Your task to perform on an android device: toggle priority inbox in the gmail app Image 0: 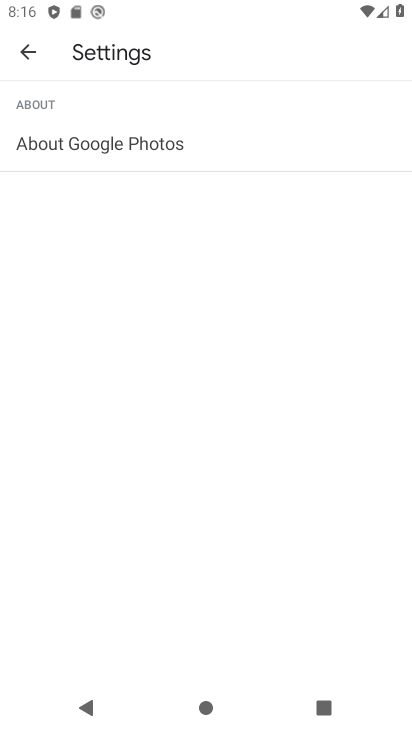
Step 0: press back button
Your task to perform on an android device: toggle priority inbox in the gmail app Image 1: 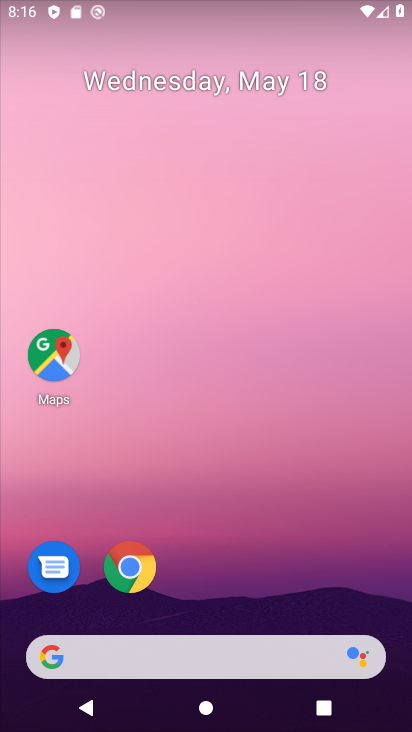
Step 1: drag from (278, 567) to (194, 1)
Your task to perform on an android device: toggle priority inbox in the gmail app Image 2: 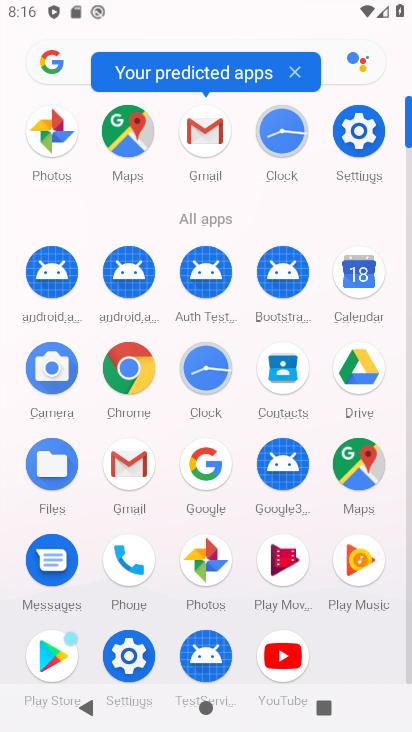
Step 2: drag from (14, 473) to (18, 206)
Your task to perform on an android device: toggle priority inbox in the gmail app Image 3: 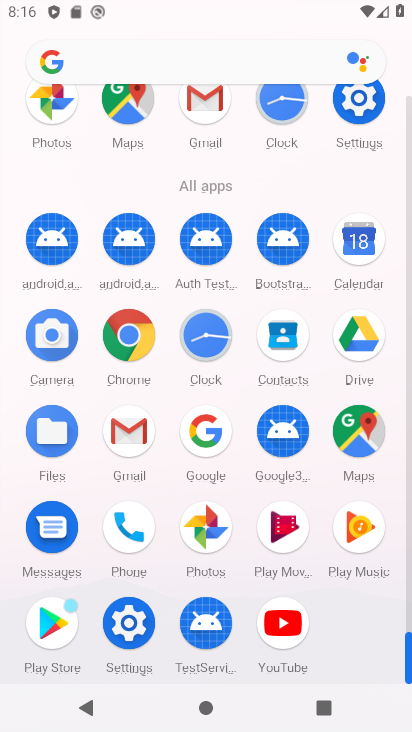
Step 3: click (126, 423)
Your task to perform on an android device: toggle priority inbox in the gmail app Image 4: 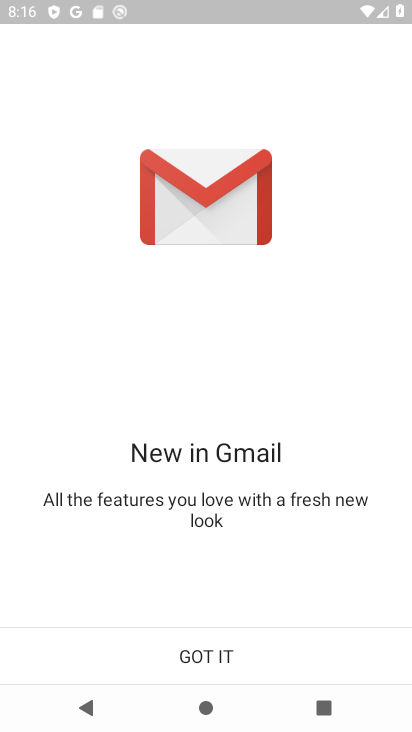
Step 4: click (203, 634)
Your task to perform on an android device: toggle priority inbox in the gmail app Image 5: 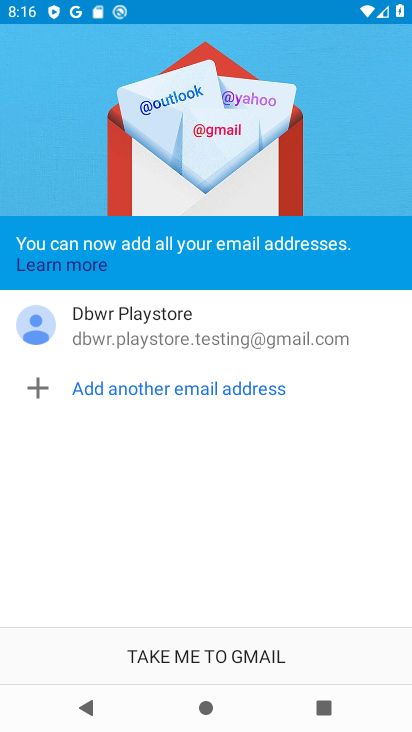
Step 5: click (209, 641)
Your task to perform on an android device: toggle priority inbox in the gmail app Image 6: 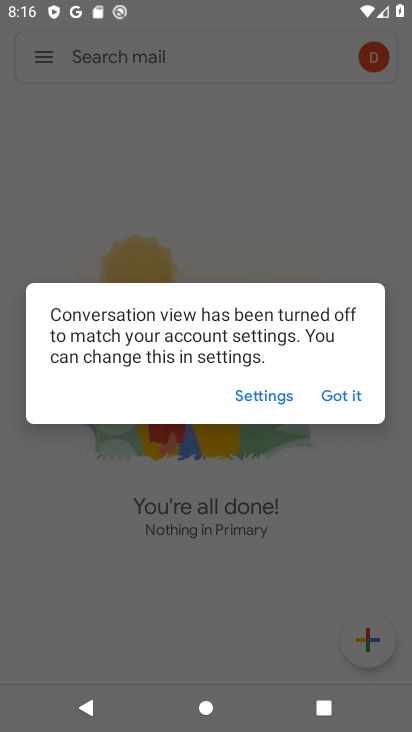
Step 6: click (330, 389)
Your task to perform on an android device: toggle priority inbox in the gmail app Image 7: 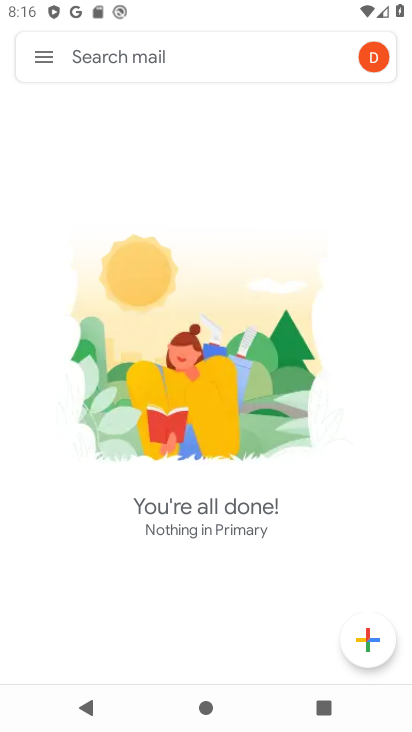
Step 7: click (42, 62)
Your task to perform on an android device: toggle priority inbox in the gmail app Image 8: 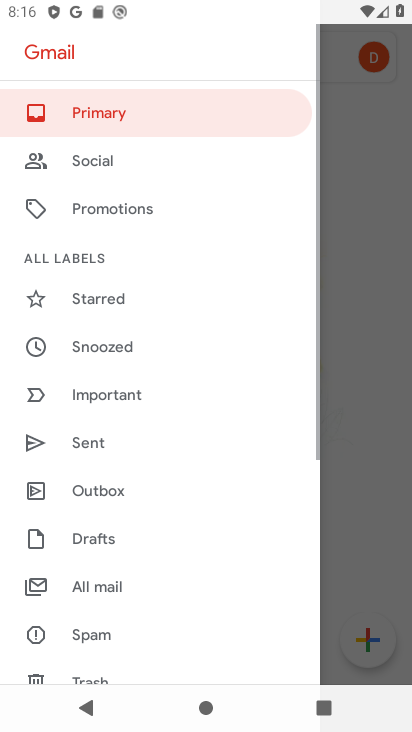
Step 8: drag from (130, 620) to (149, 148)
Your task to perform on an android device: toggle priority inbox in the gmail app Image 9: 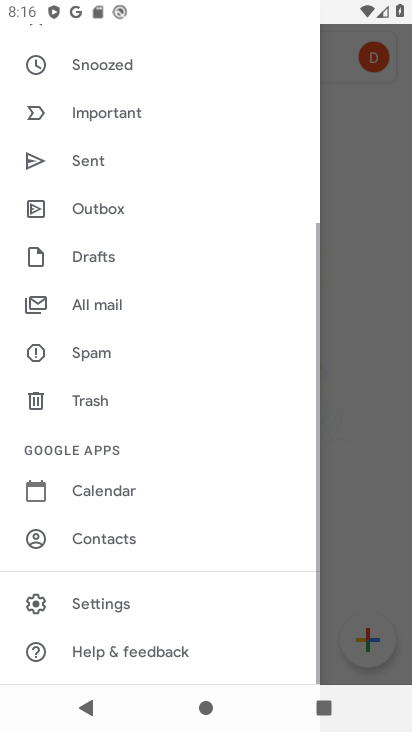
Step 9: click (80, 600)
Your task to perform on an android device: toggle priority inbox in the gmail app Image 10: 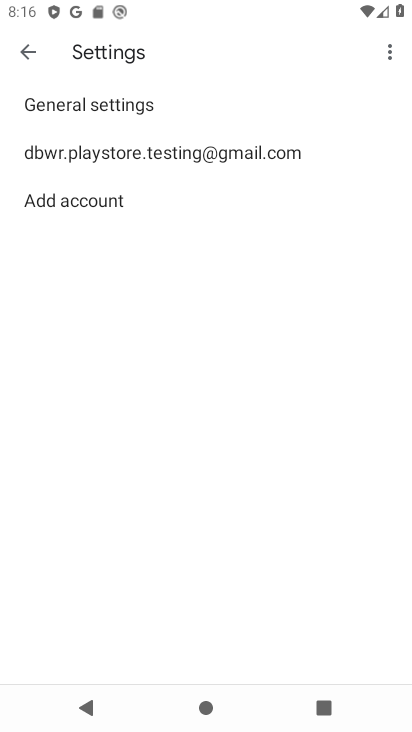
Step 10: click (115, 143)
Your task to perform on an android device: toggle priority inbox in the gmail app Image 11: 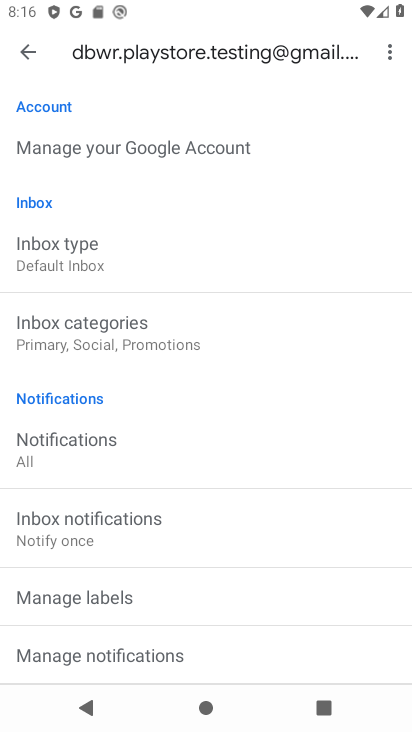
Step 11: click (106, 261)
Your task to perform on an android device: toggle priority inbox in the gmail app Image 12: 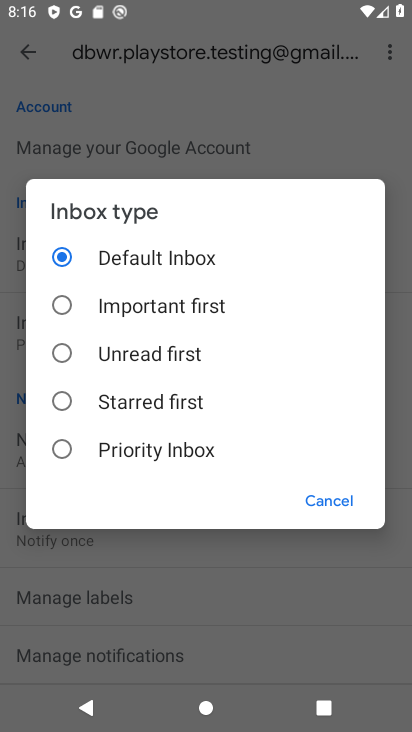
Step 12: click (116, 457)
Your task to perform on an android device: toggle priority inbox in the gmail app Image 13: 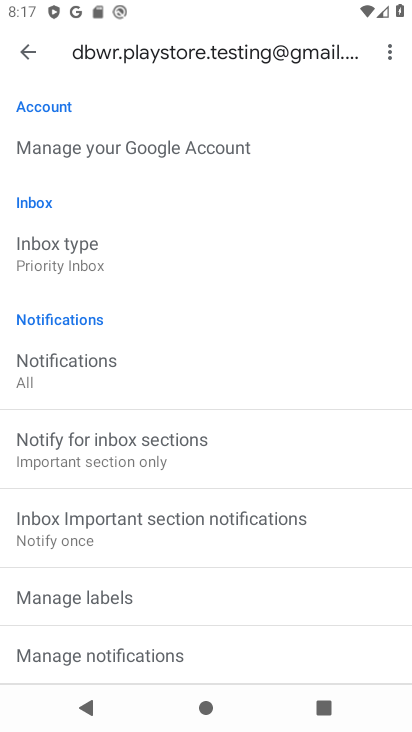
Step 13: task complete